Your task to perform on an android device: add a label to a message in the gmail app Image 0: 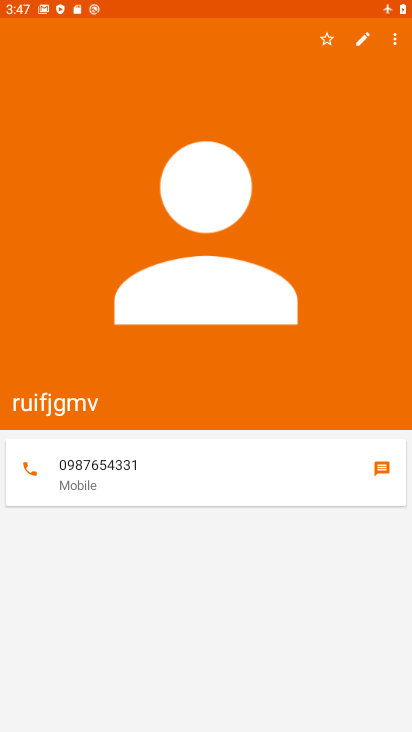
Step 0: press home button
Your task to perform on an android device: add a label to a message in the gmail app Image 1: 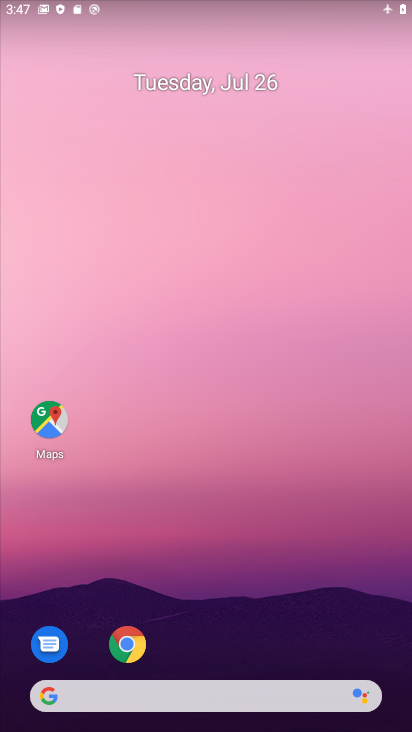
Step 1: drag from (387, 658) to (306, 171)
Your task to perform on an android device: add a label to a message in the gmail app Image 2: 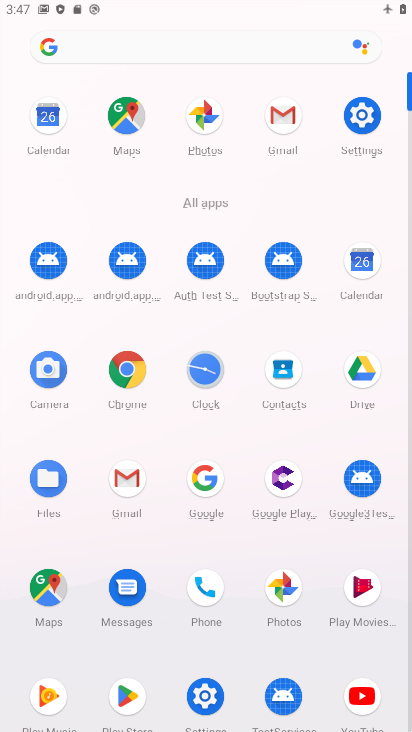
Step 2: click (123, 476)
Your task to perform on an android device: add a label to a message in the gmail app Image 3: 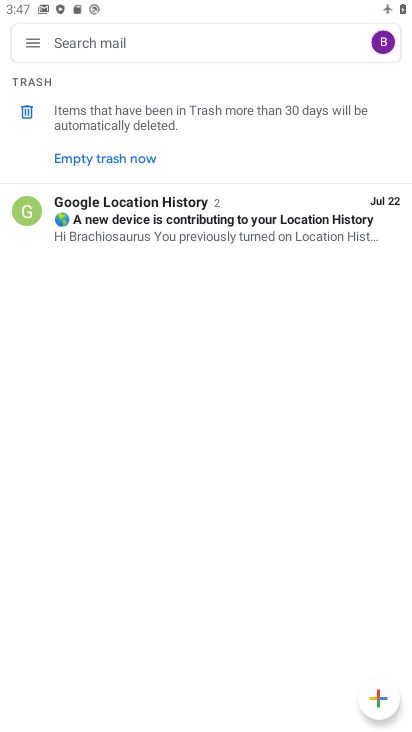
Step 3: click (173, 214)
Your task to perform on an android device: add a label to a message in the gmail app Image 4: 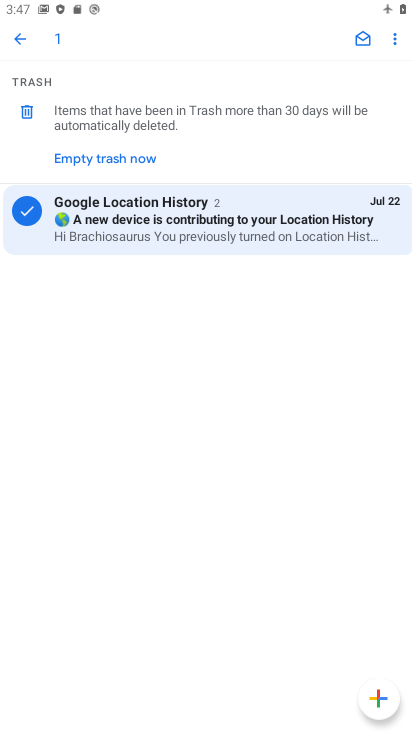
Step 4: click (394, 41)
Your task to perform on an android device: add a label to a message in the gmail app Image 5: 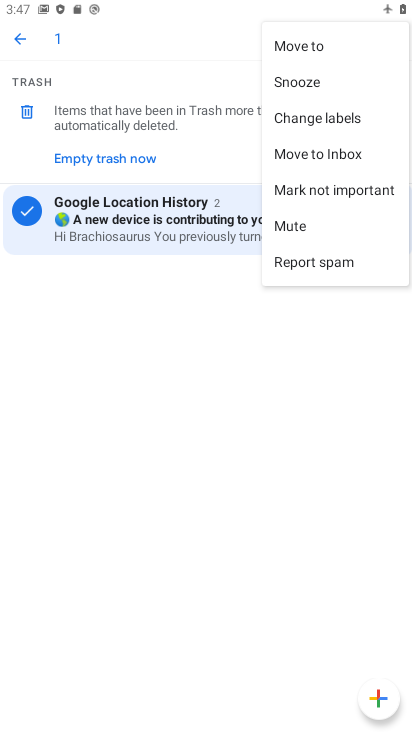
Step 5: click (301, 117)
Your task to perform on an android device: add a label to a message in the gmail app Image 6: 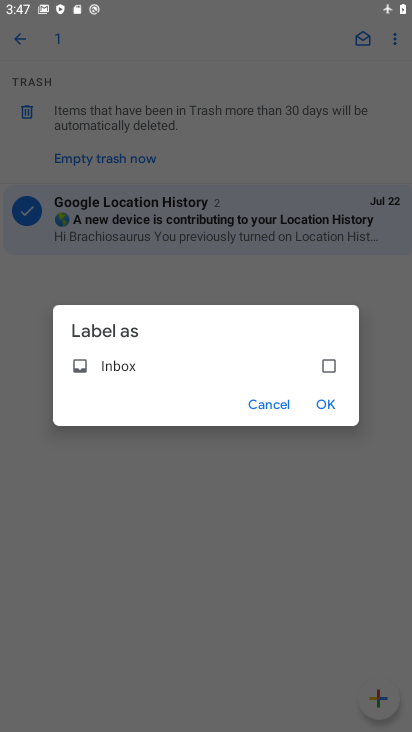
Step 6: click (329, 359)
Your task to perform on an android device: add a label to a message in the gmail app Image 7: 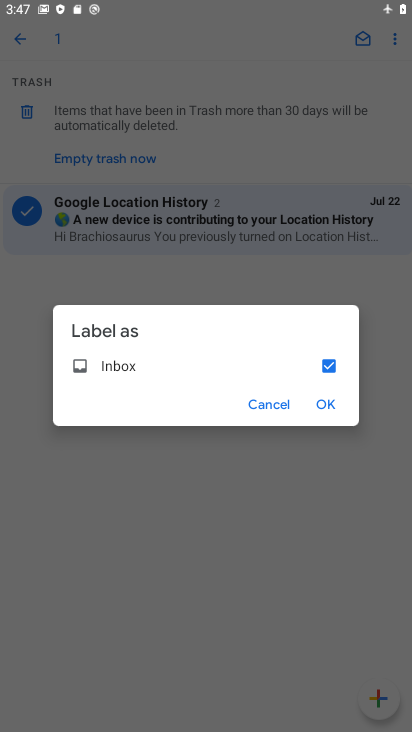
Step 7: click (327, 405)
Your task to perform on an android device: add a label to a message in the gmail app Image 8: 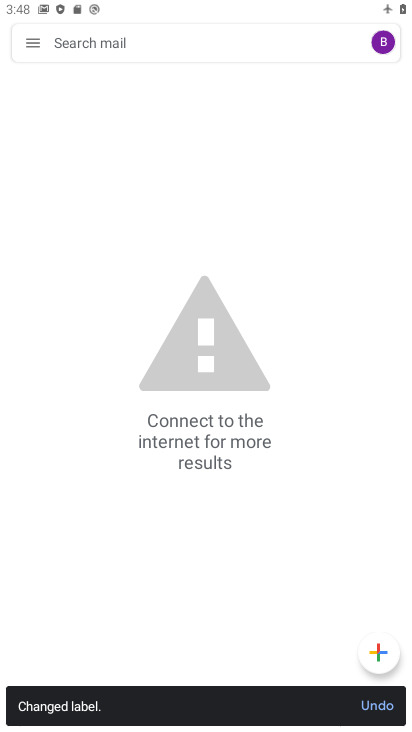
Step 8: task complete